Your task to perform on an android device: create a new album in the google photos Image 0: 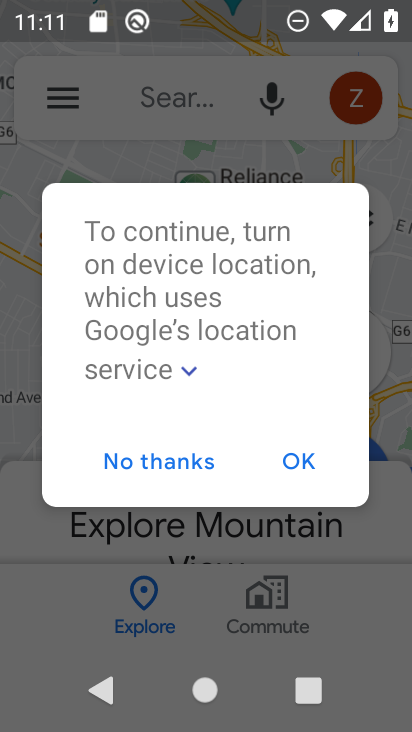
Step 0: press home button
Your task to perform on an android device: create a new album in the google photos Image 1: 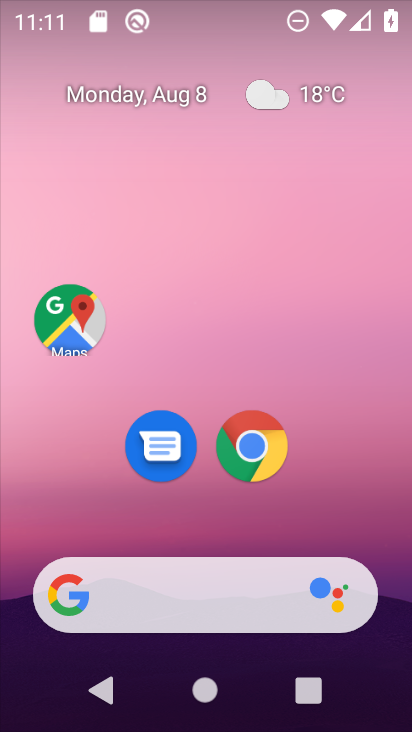
Step 1: drag from (401, 635) to (366, 109)
Your task to perform on an android device: create a new album in the google photos Image 2: 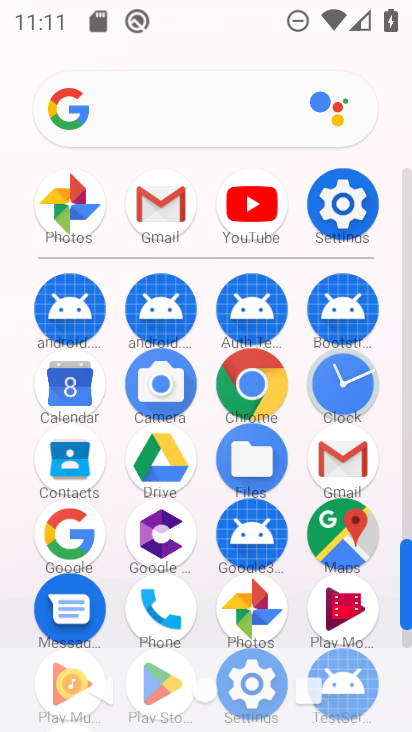
Step 2: click (253, 612)
Your task to perform on an android device: create a new album in the google photos Image 3: 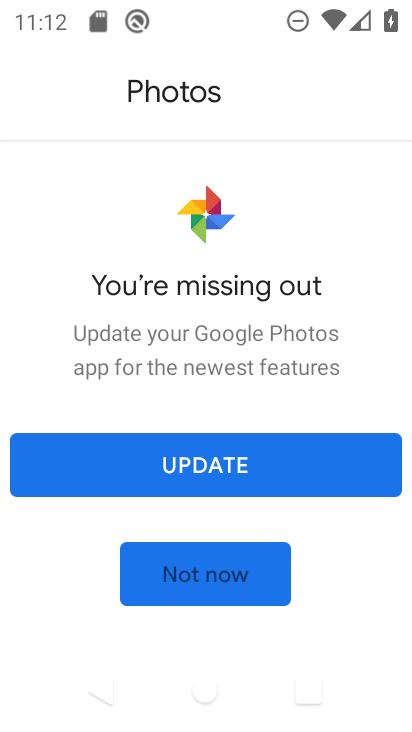
Step 3: click (201, 460)
Your task to perform on an android device: create a new album in the google photos Image 4: 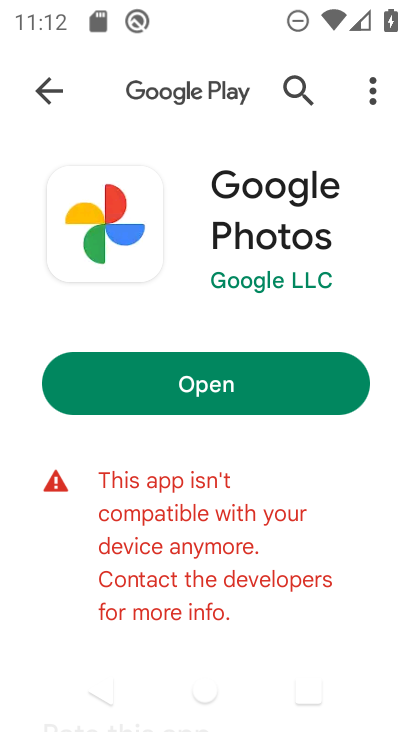
Step 4: click (210, 388)
Your task to perform on an android device: create a new album in the google photos Image 5: 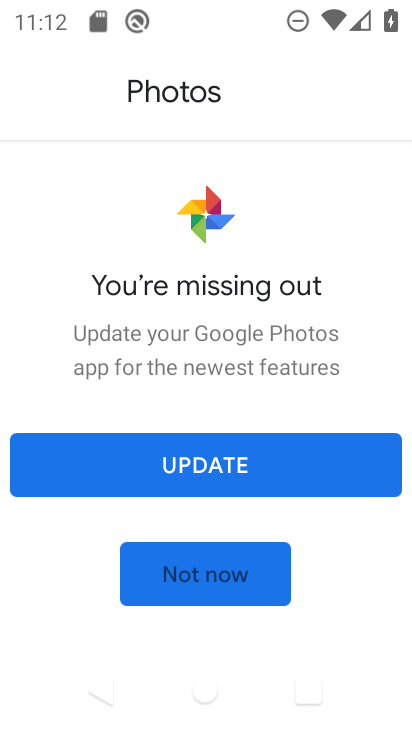
Step 5: click (211, 469)
Your task to perform on an android device: create a new album in the google photos Image 6: 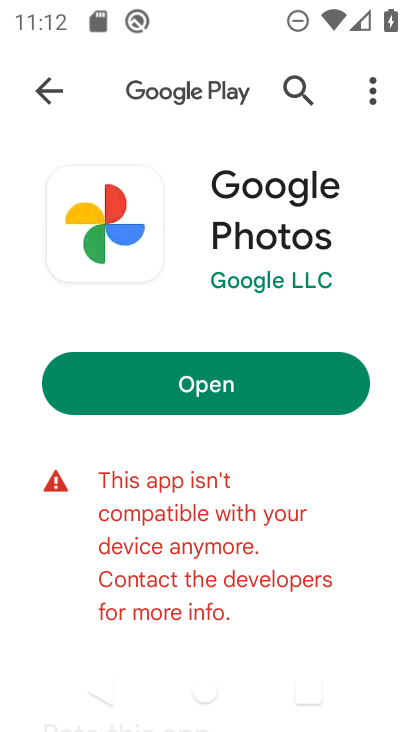
Step 6: task complete